Your task to perform on an android device: change notification settings in the gmail app Image 0: 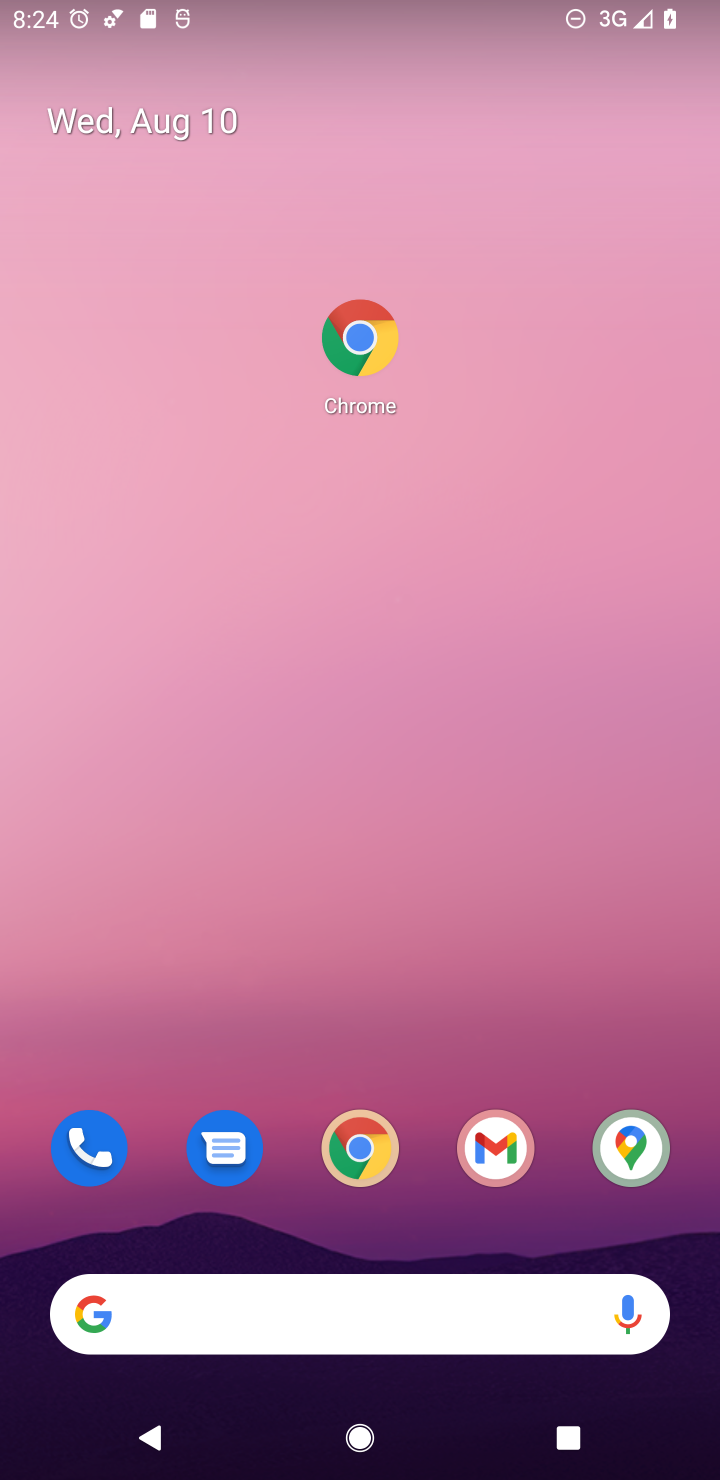
Step 0: click (641, 1474)
Your task to perform on an android device: change notification settings in the gmail app Image 1: 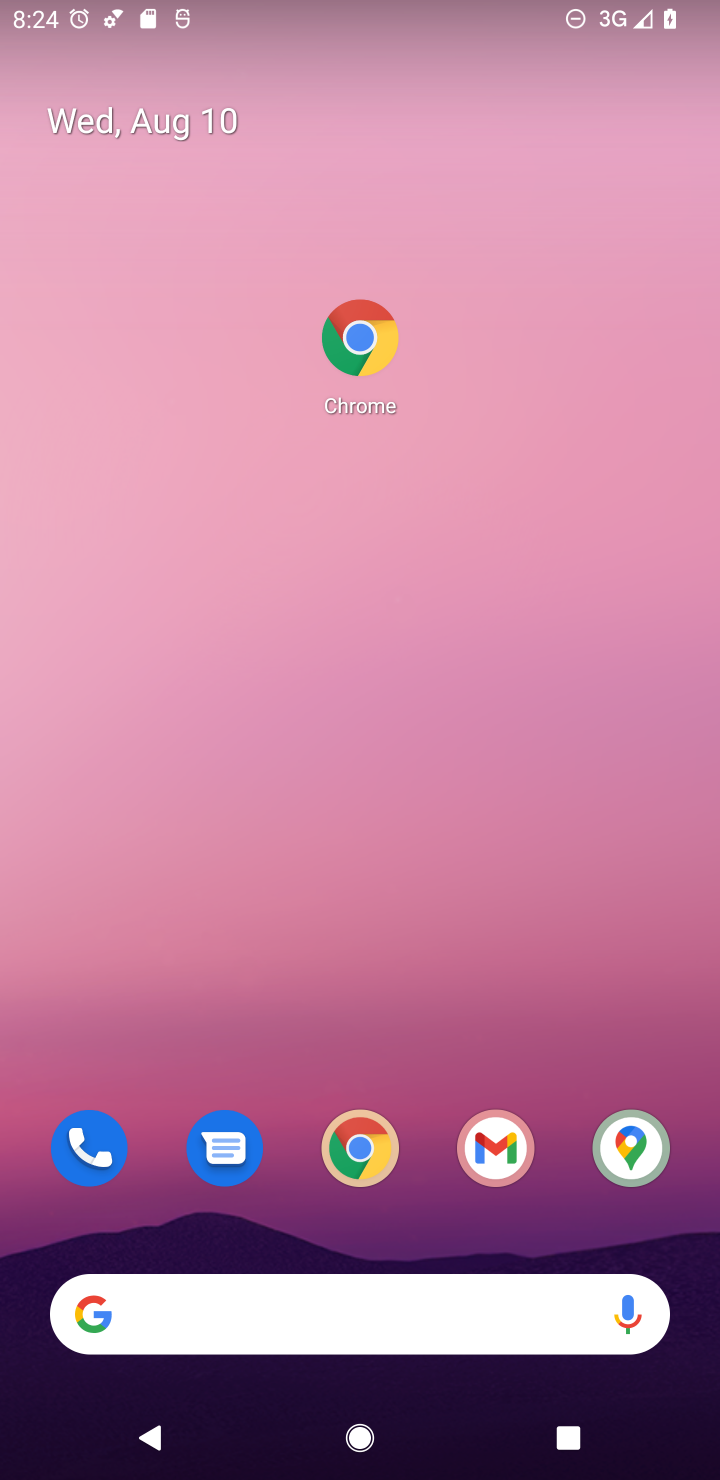
Step 1: click (468, 1156)
Your task to perform on an android device: change notification settings in the gmail app Image 2: 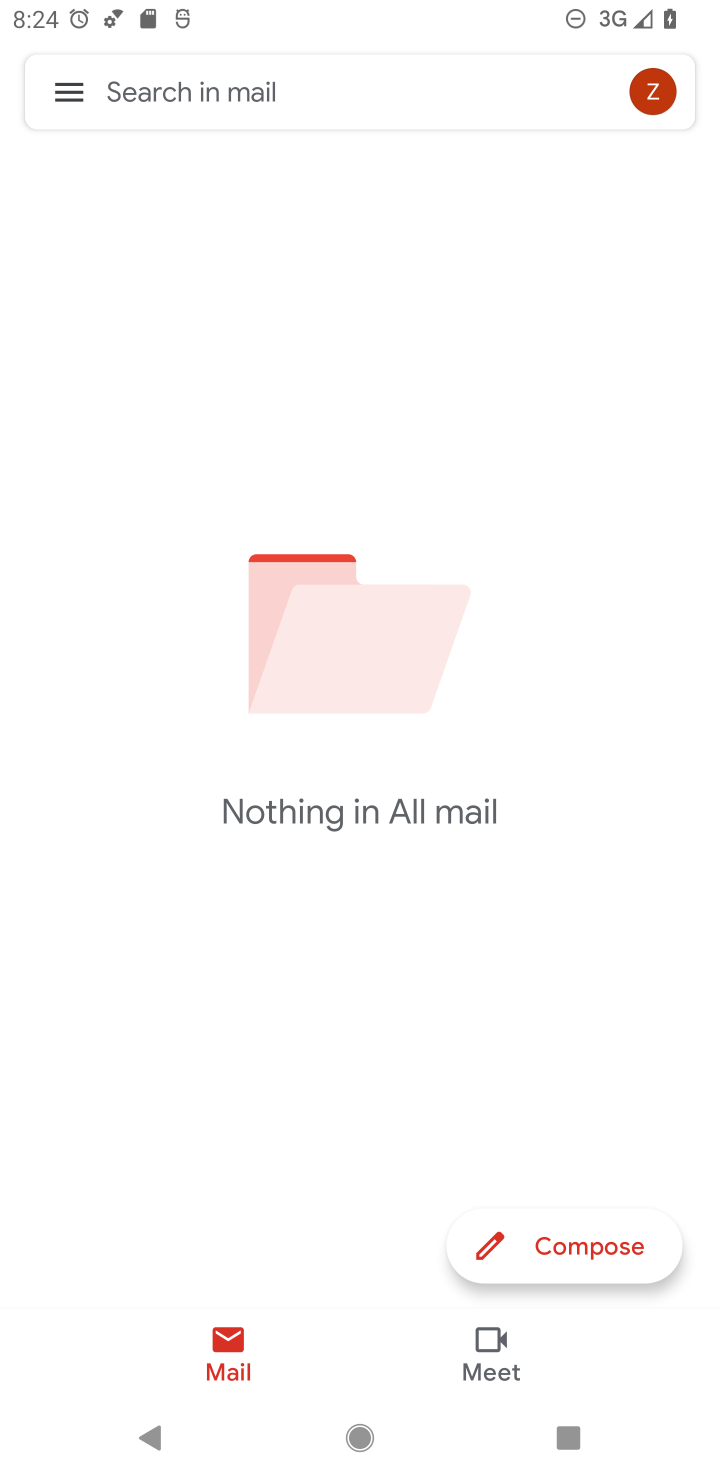
Step 2: click (65, 107)
Your task to perform on an android device: change notification settings in the gmail app Image 3: 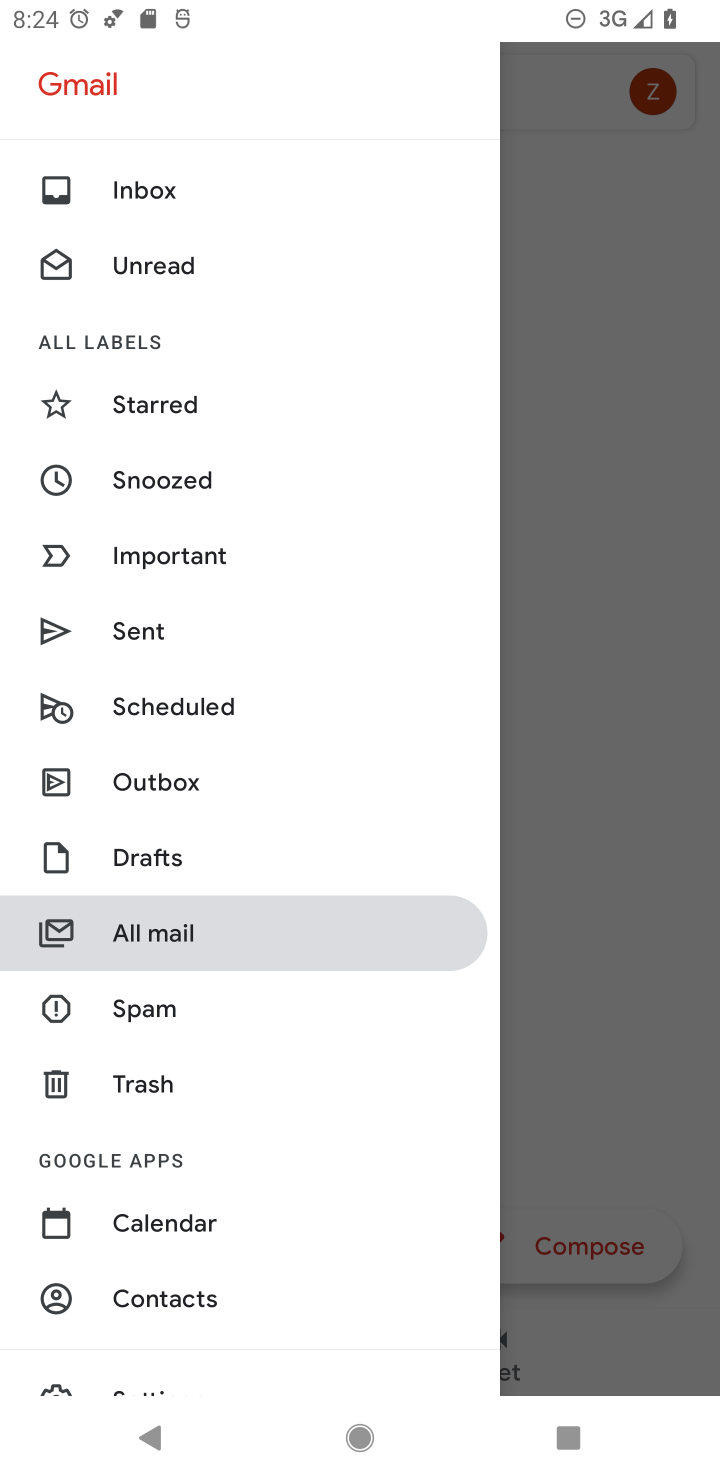
Step 3: drag from (289, 1278) to (298, 356)
Your task to perform on an android device: change notification settings in the gmail app Image 4: 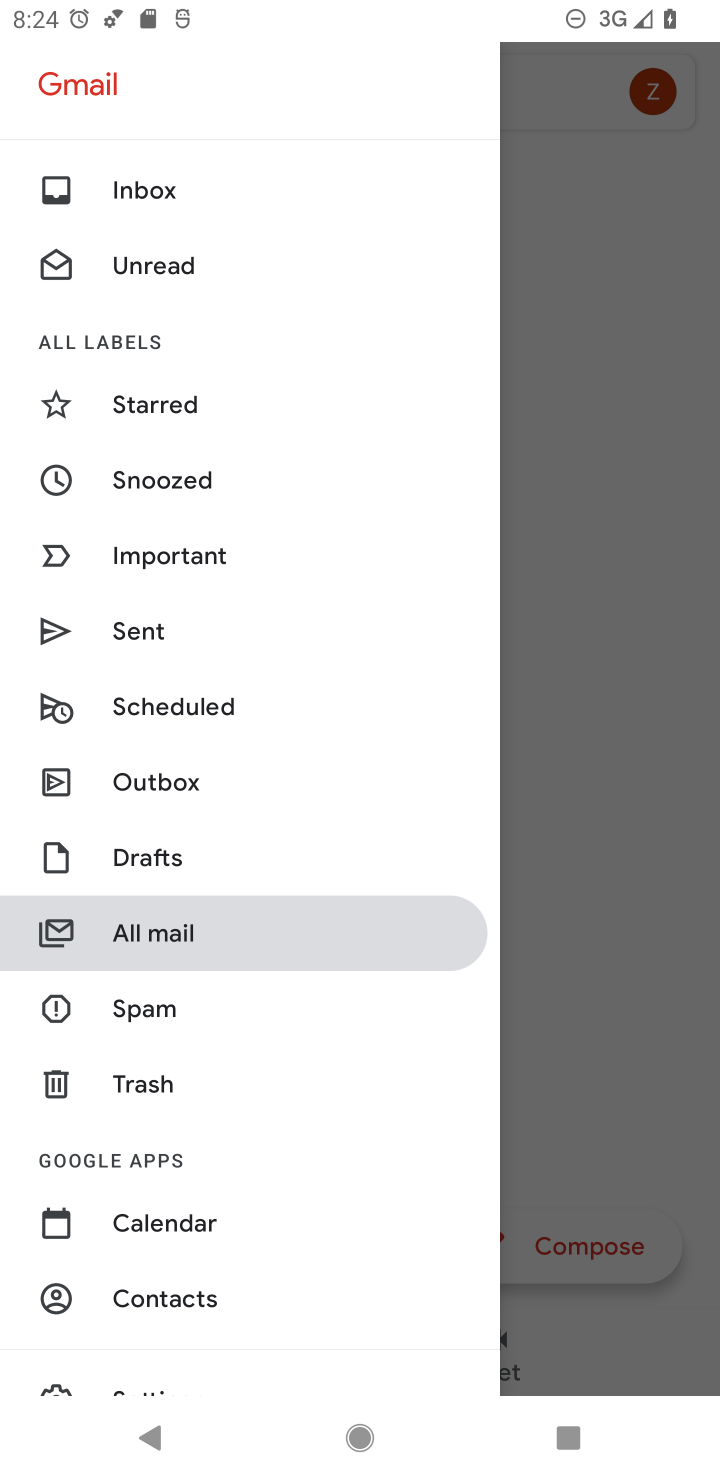
Step 4: drag from (293, 1263) to (438, 266)
Your task to perform on an android device: change notification settings in the gmail app Image 5: 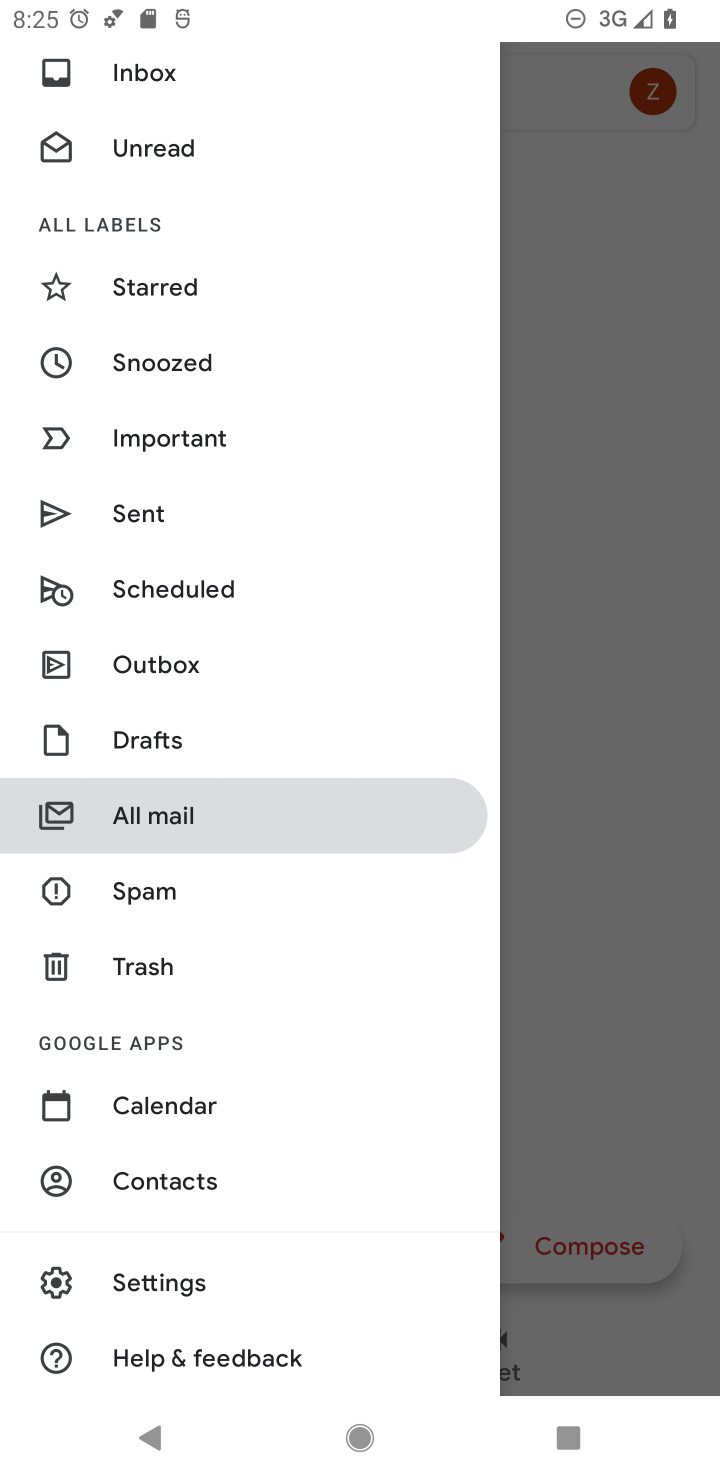
Step 5: click (144, 1285)
Your task to perform on an android device: change notification settings in the gmail app Image 6: 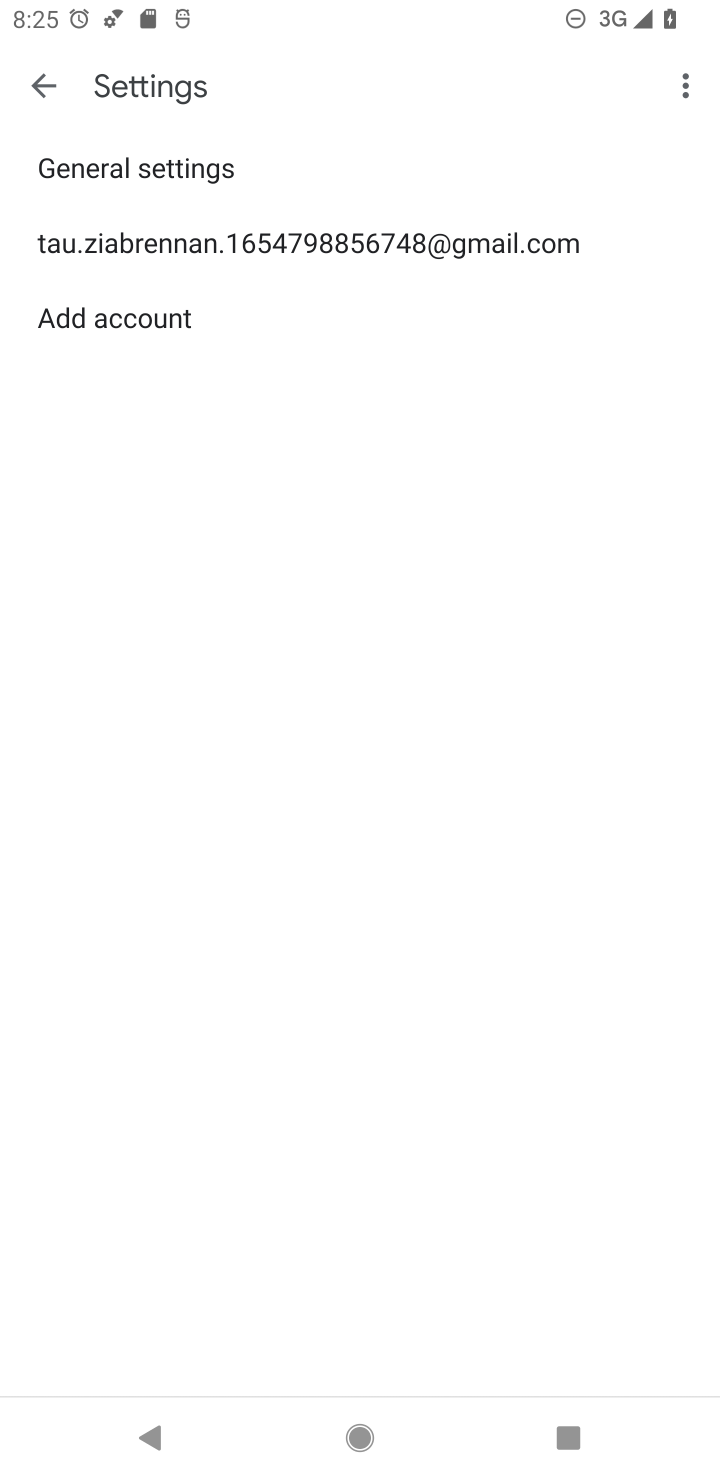
Step 6: click (165, 154)
Your task to perform on an android device: change notification settings in the gmail app Image 7: 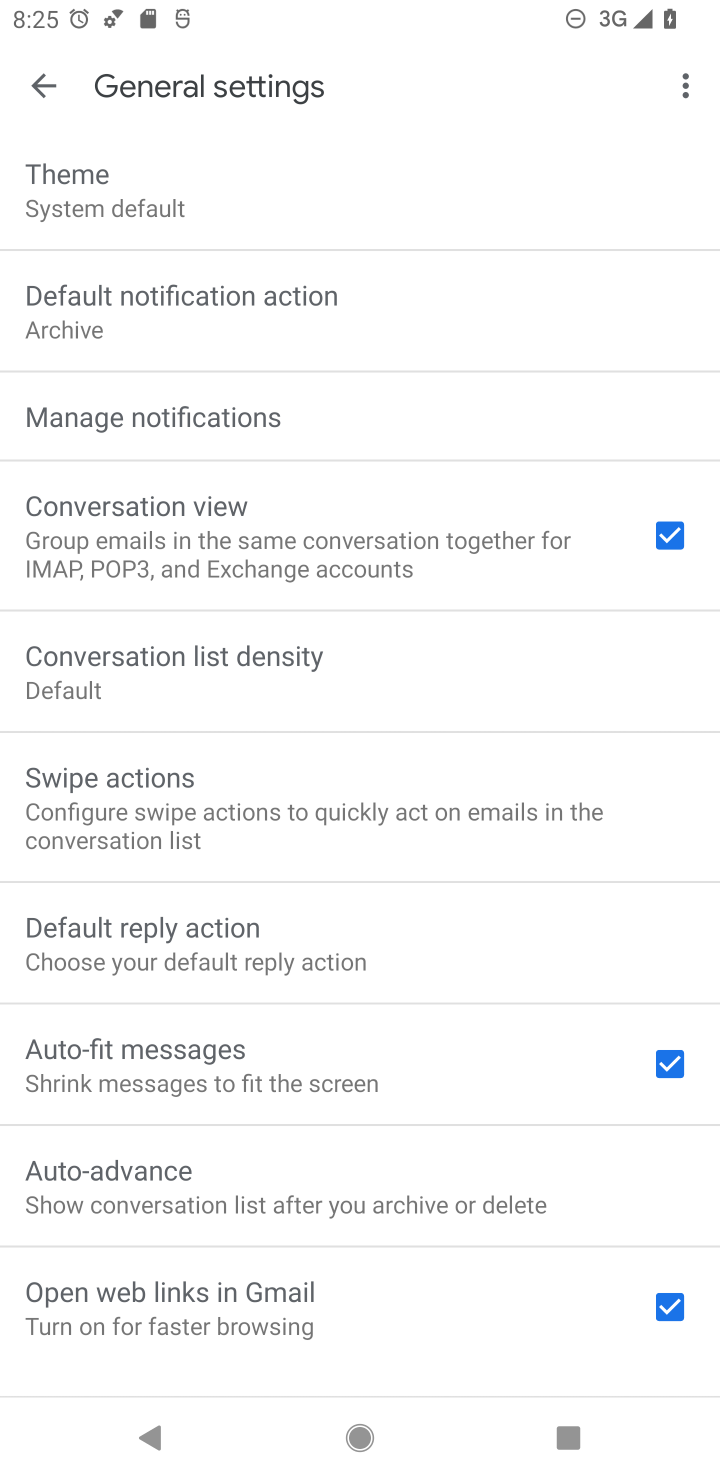
Step 7: click (270, 426)
Your task to perform on an android device: change notification settings in the gmail app Image 8: 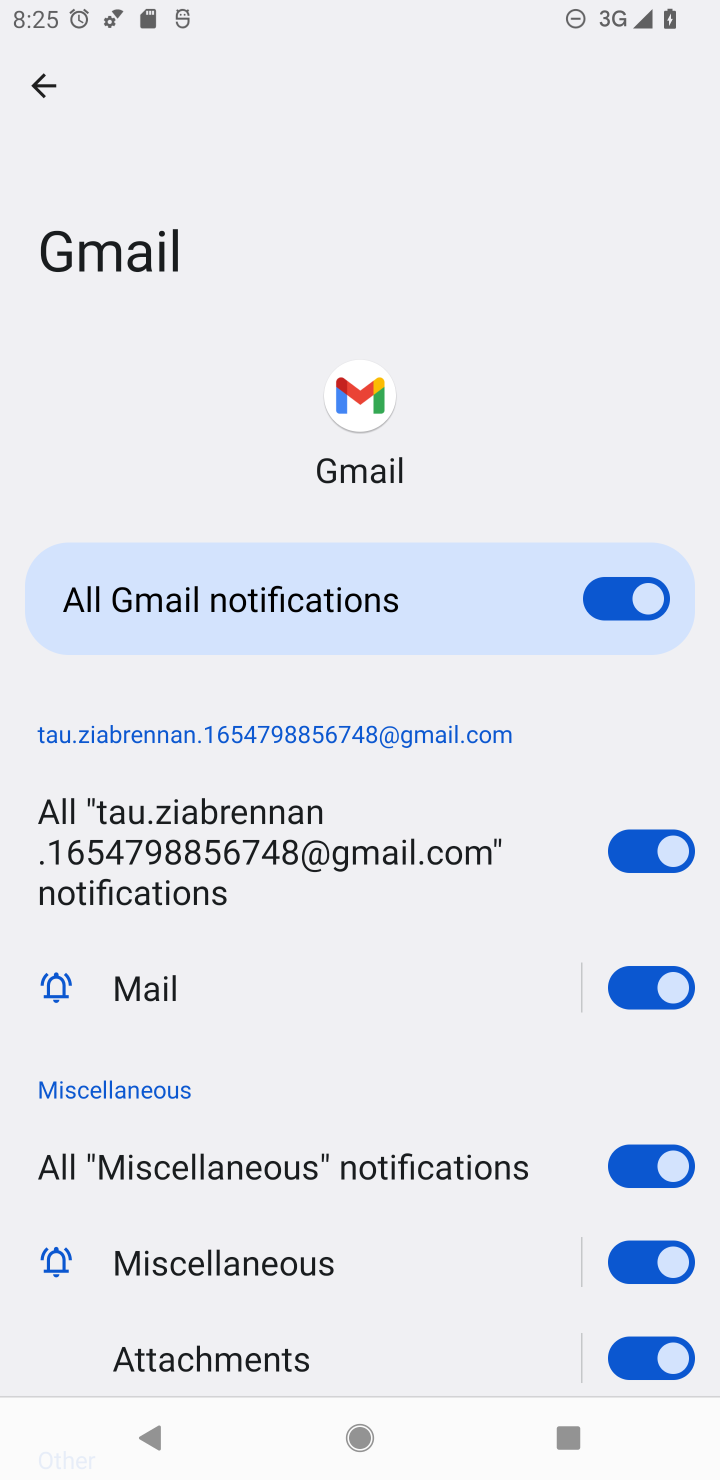
Step 8: click (644, 1259)
Your task to perform on an android device: change notification settings in the gmail app Image 9: 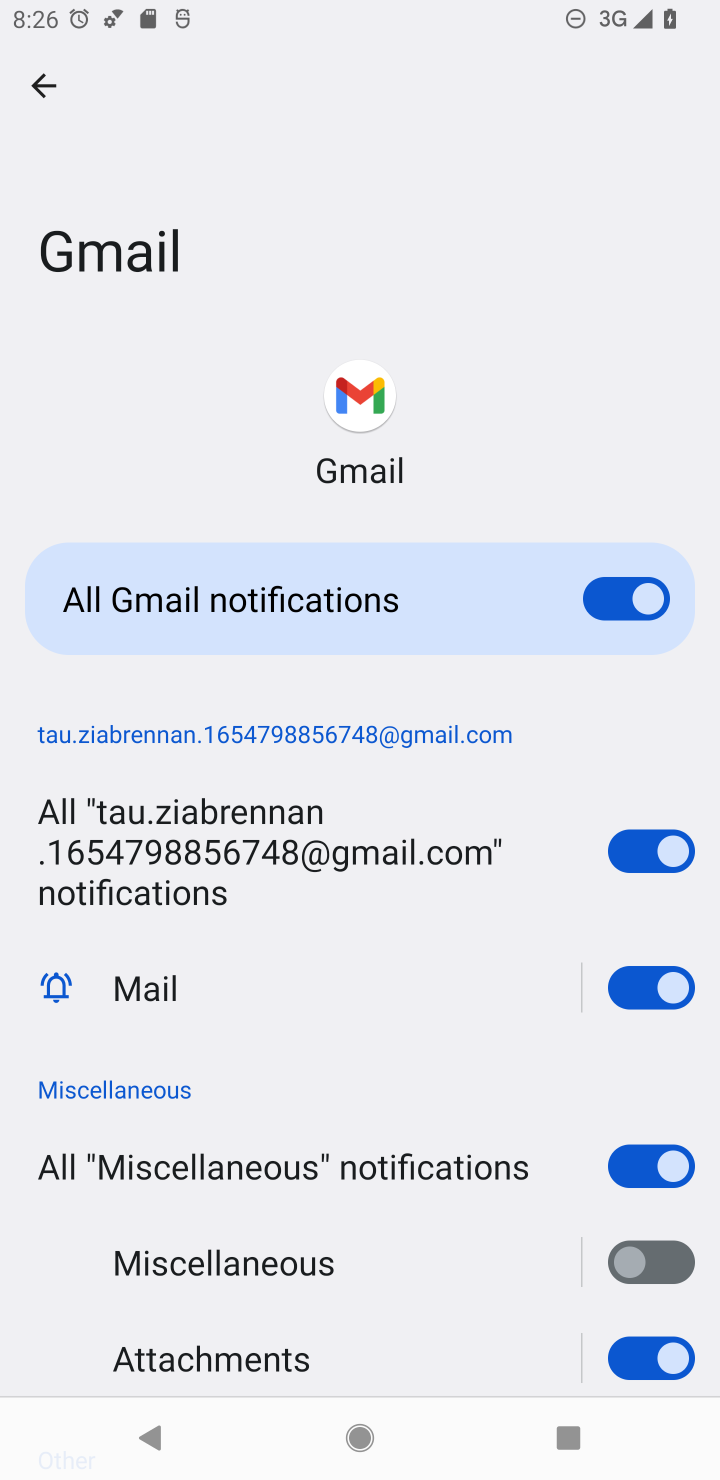
Step 9: task complete